Your task to perform on an android device: empty trash in the gmail app Image 0: 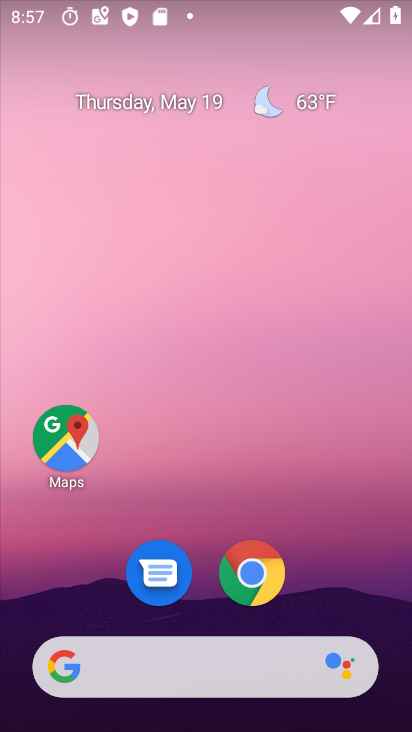
Step 0: drag from (362, 611) to (346, 9)
Your task to perform on an android device: empty trash in the gmail app Image 1: 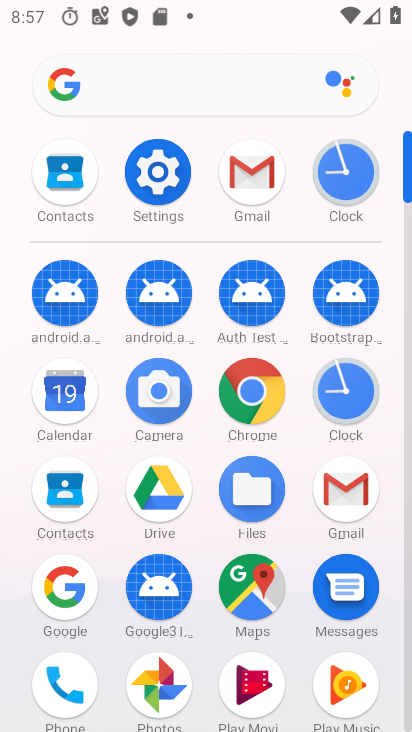
Step 1: click (263, 179)
Your task to perform on an android device: empty trash in the gmail app Image 2: 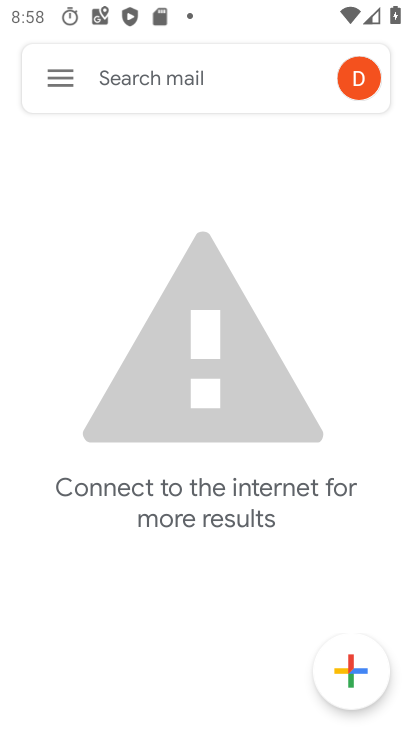
Step 2: click (55, 75)
Your task to perform on an android device: empty trash in the gmail app Image 3: 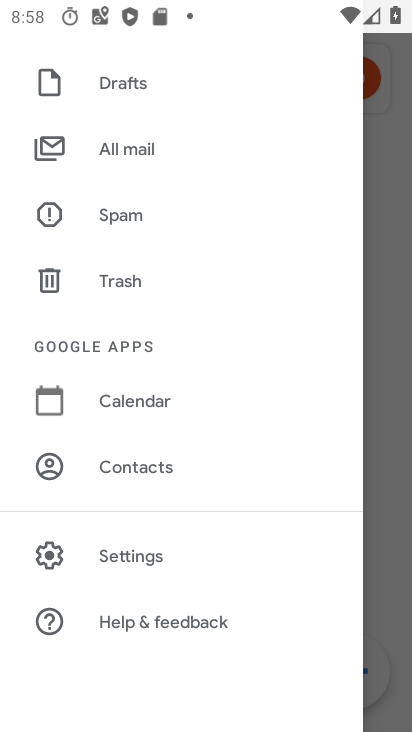
Step 3: click (133, 284)
Your task to perform on an android device: empty trash in the gmail app Image 4: 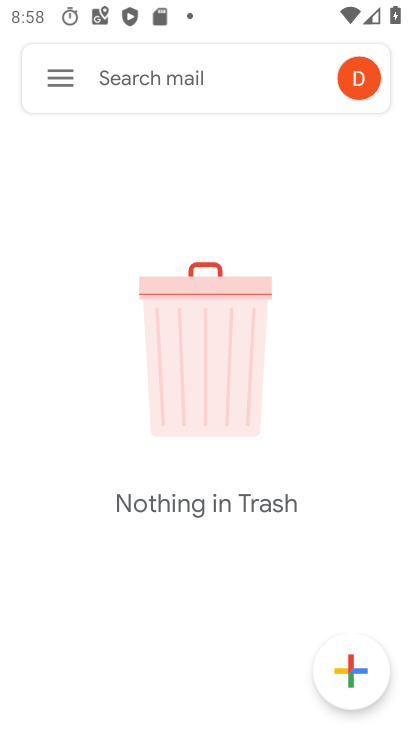
Step 4: task complete